Your task to perform on an android device: Open notification settings Image 0: 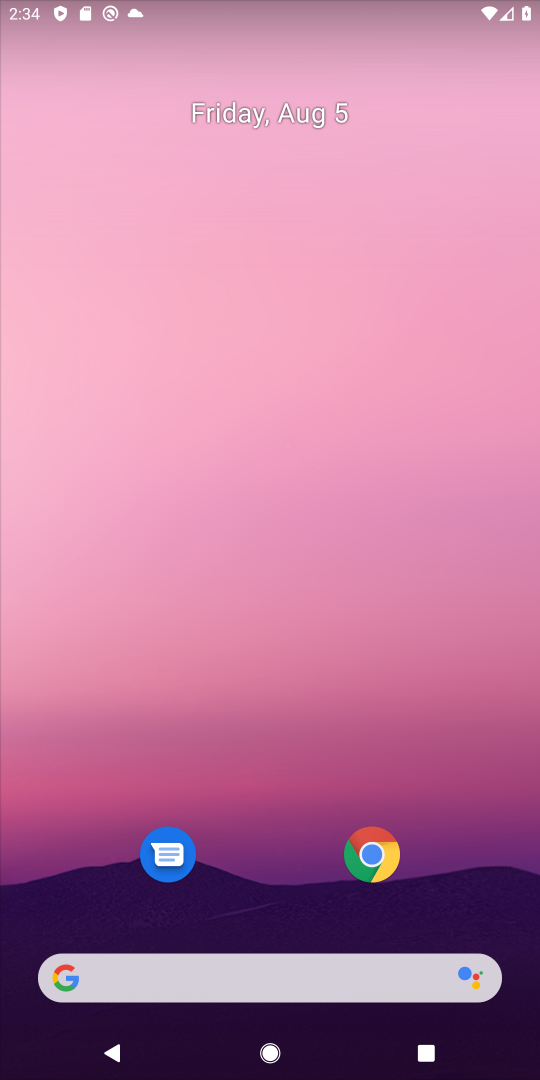
Step 0: drag from (85, 1023) to (409, 205)
Your task to perform on an android device: Open notification settings Image 1: 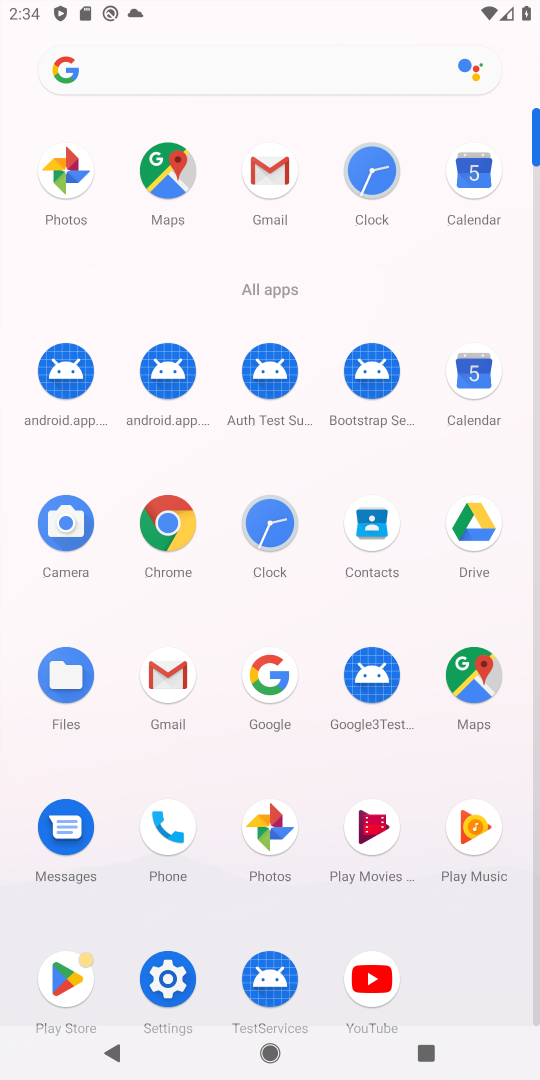
Step 1: click (179, 982)
Your task to perform on an android device: Open notification settings Image 2: 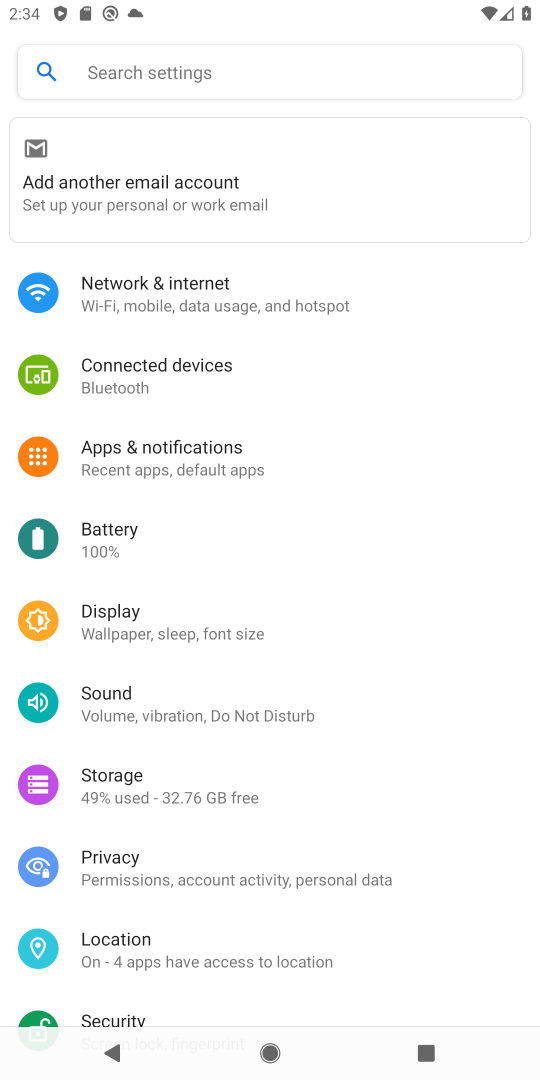
Step 2: click (236, 454)
Your task to perform on an android device: Open notification settings Image 3: 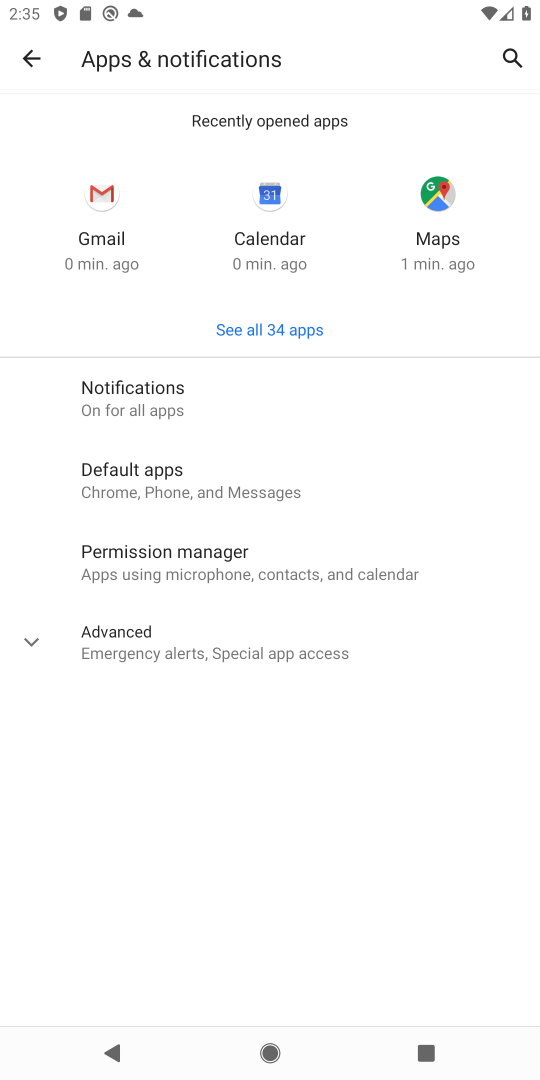
Step 3: task complete